Your task to perform on an android device: allow cookies in the chrome app Image 0: 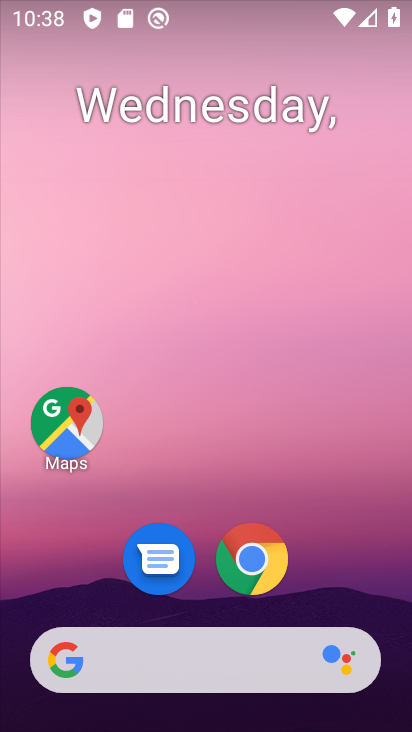
Step 0: drag from (405, 560) to (288, 11)
Your task to perform on an android device: allow cookies in the chrome app Image 1: 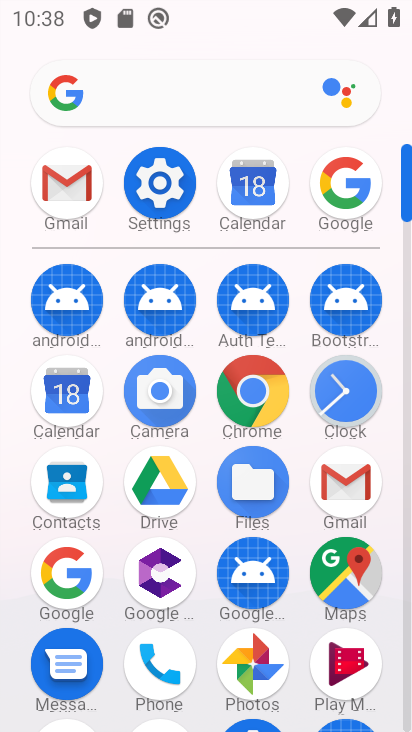
Step 1: click (251, 424)
Your task to perform on an android device: allow cookies in the chrome app Image 2: 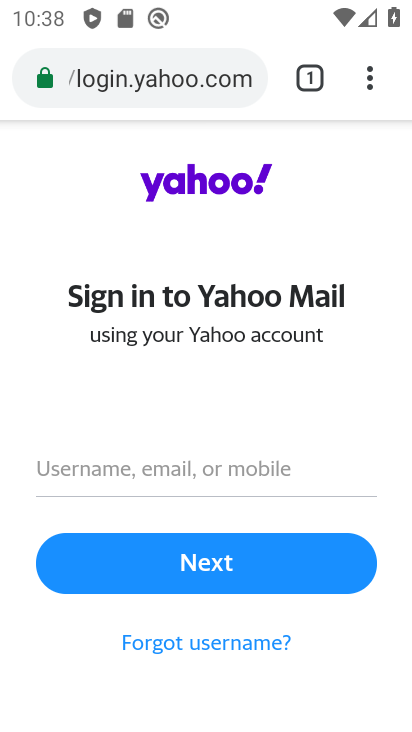
Step 2: drag from (372, 87) to (166, 593)
Your task to perform on an android device: allow cookies in the chrome app Image 3: 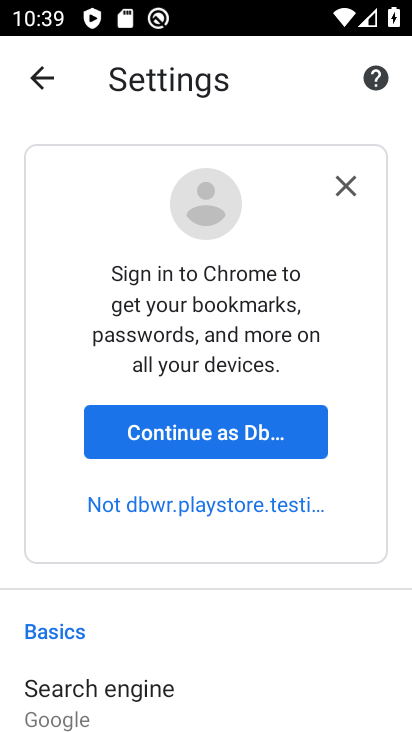
Step 3: drag from (196, 637) to (141, 260)
Your task to perform on an android device: allow cookies in the chrome app Image 4: 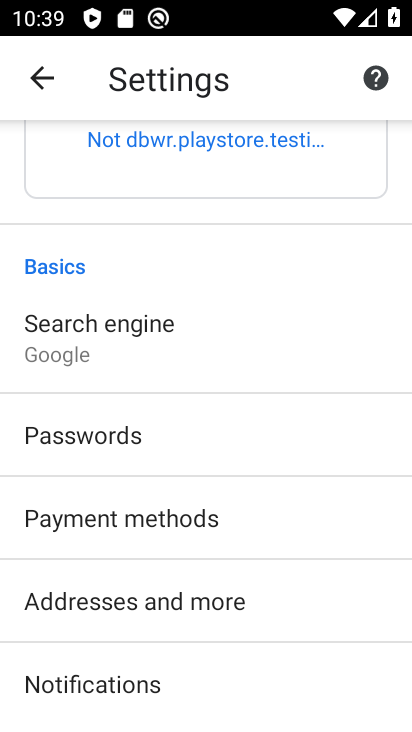
Step 4: drag from (196, 657) to (145, 194)
Your task to perform on an android device: allow cookies in the chrome app Image 5: 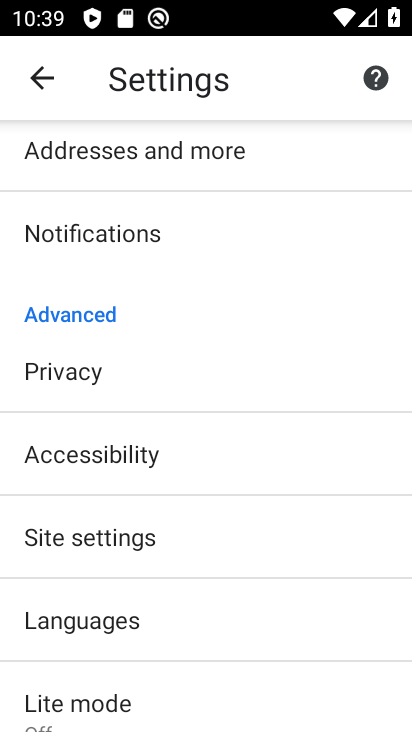
Step 5: drag from (193, 623) to (110, 286)
Your task to perform on an android device: allow cookies in the chrome app Image 6: 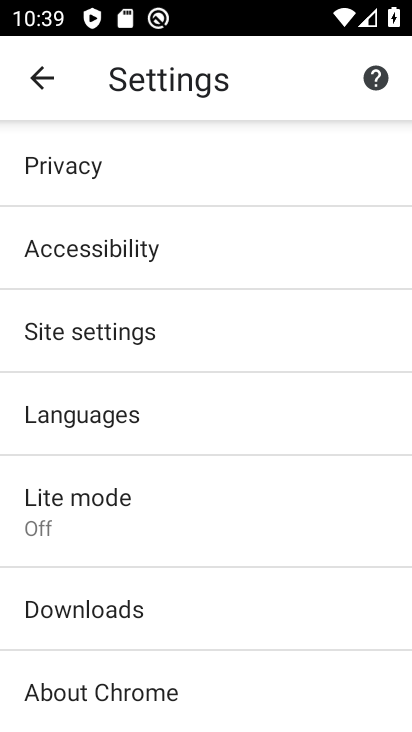
Step 6: drag from (149, 278) to (195, 654)
Your task to perform on an android device: allow cookies in the chrome app Image 7: 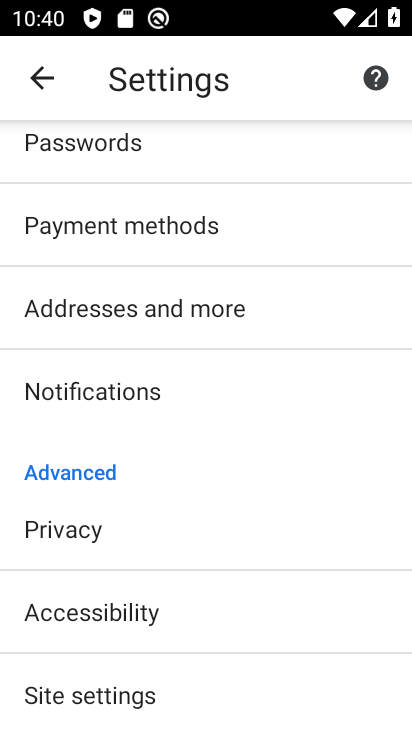
Step 7: drag from (265, 229) to (290, 717)
Your task to perform on an android device: allow cookies in the chrome app Image 8: 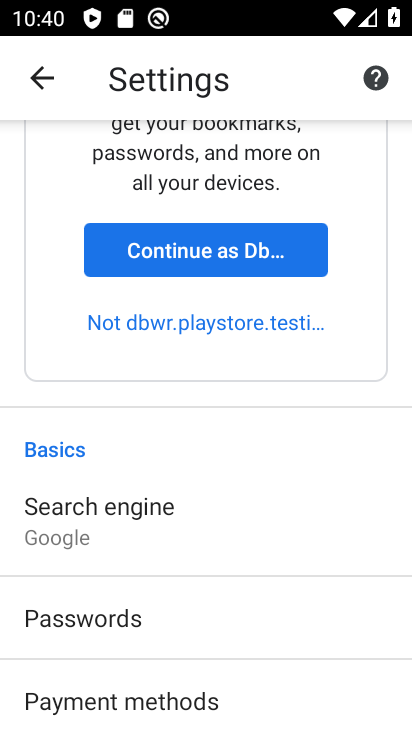
Step 8: drag from (220, 635) to (137, 223)
Your task to perform on an android device: allow cookies in the chrome app Image 9: 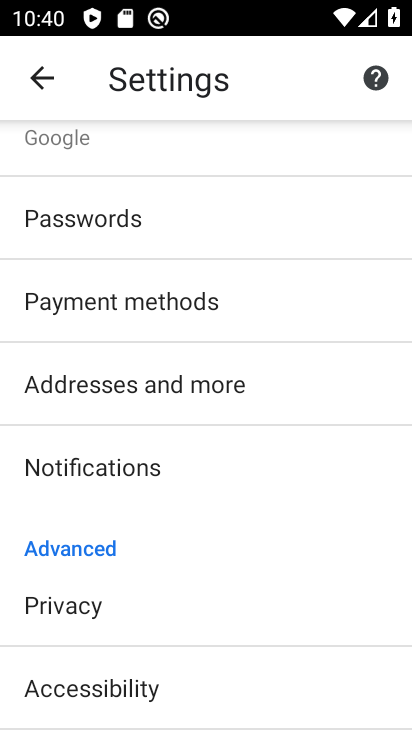
Step 9: drag from (133, 611) to (108, 255)
Your task to perform on an android device: allow cookies in the chrome app Image 10: 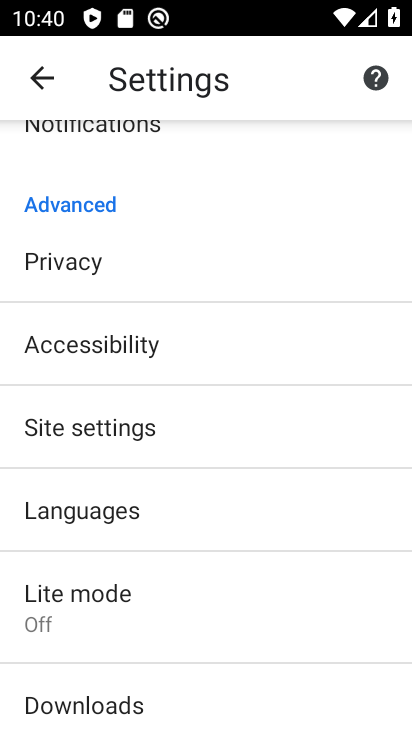
Step 10: click (88, 425)
Your task to perform on an android device: allow cookies in the chrome app Image 11: 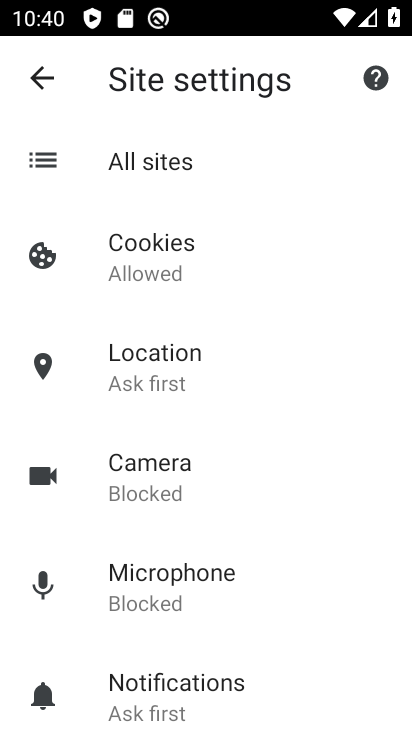
Step 11: click (165, 282)
Your task to perform on an android device: allow cookies in the chrome app Image 12: 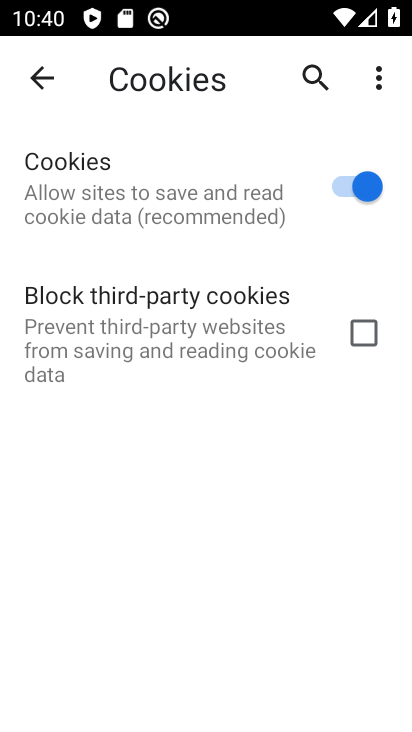
Step 12: task complete